Your task to perform on an android device: Search for sushi restaurants on Maps Image 0: 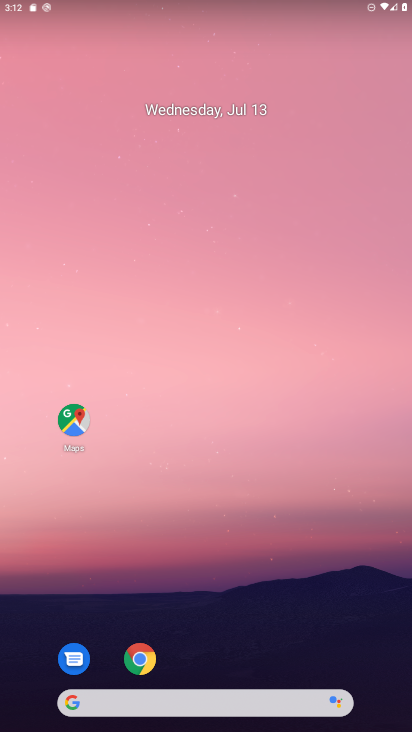
Step 0: click (74, 421)
Your task to perform on an android device: Search for sushi restaurants on Maps Image 1: 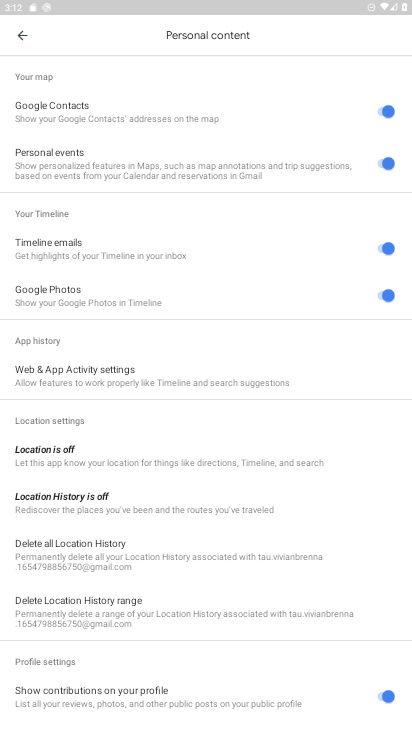
Step 1: press back button
Your task to perform on an android device: Search for sushi restaurants on Maps Image 2: 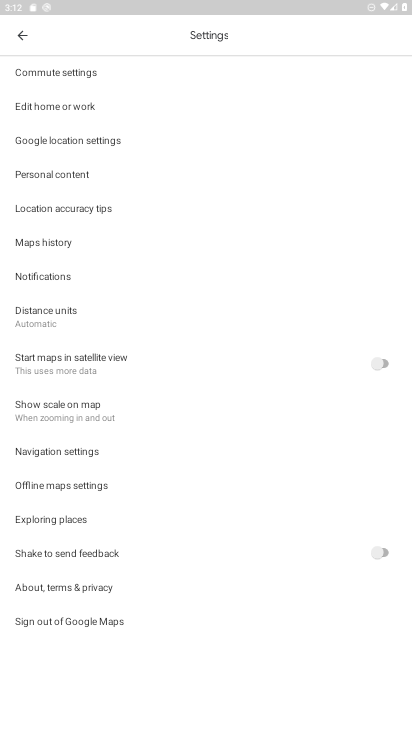
Step 2: press back button
Your task to perform on an android device: Search for sushi restaurants on Maps Image 3: 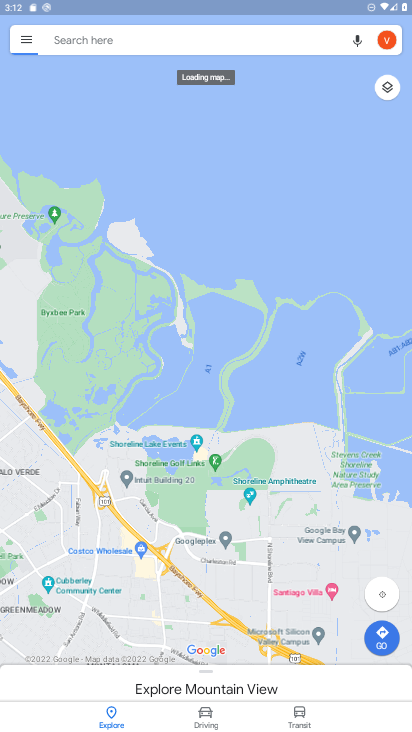
Step 3: click (95, 37)
Your task to perform on an android device: Search for sushi restaurants on Maps Image 4: 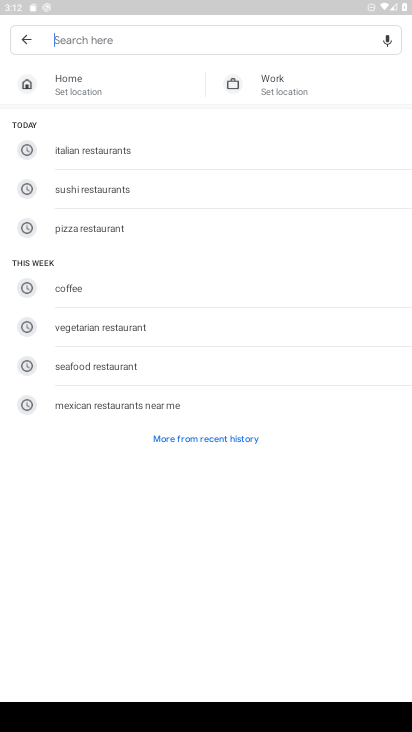
Step 4: type "sushi restaurants"
Your task to perform on an android device: Search for sushi restaurants on Maps Image 5: 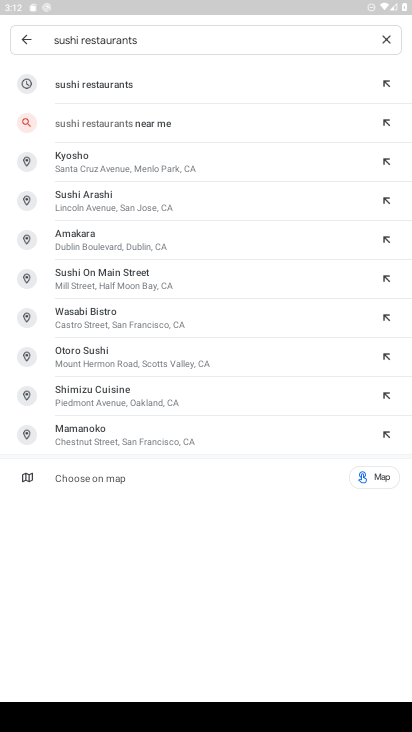
Step 5: click (65, 80)
Your task to perform on an android device: Search for sushi restaurants on Maps Image 6: 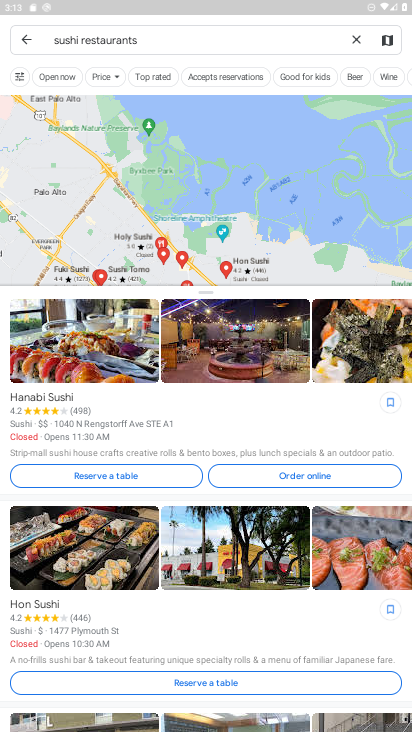
Step 6: task complete